Your task to perform on an android device: open the mobile data screen to see how much data has been used Image 0: 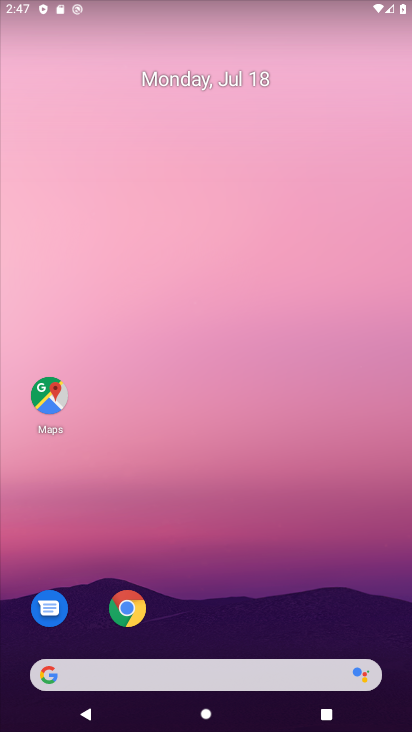
Step 0: drag from (243, 641) to (306, 95)
Your task to perform on an android device: open the mobile data screen to see how much data has been used Image 1: 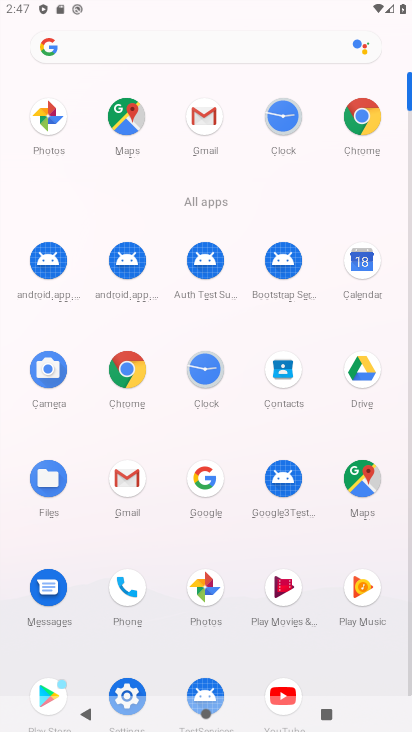
Step 1: click (109, 692)
Your task to perform on an android device: open the mobile data screen to see how much data has been used Image 2: 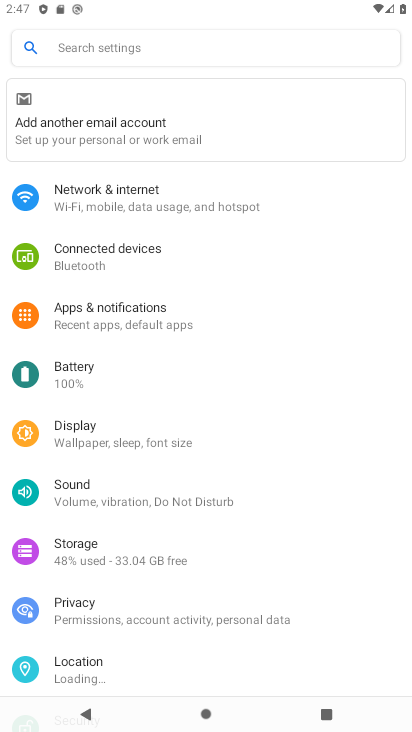
Step 2: click (188, 196)
Your task to perform on an android device: open the mobile data screen to see how much data has been used Image 3: 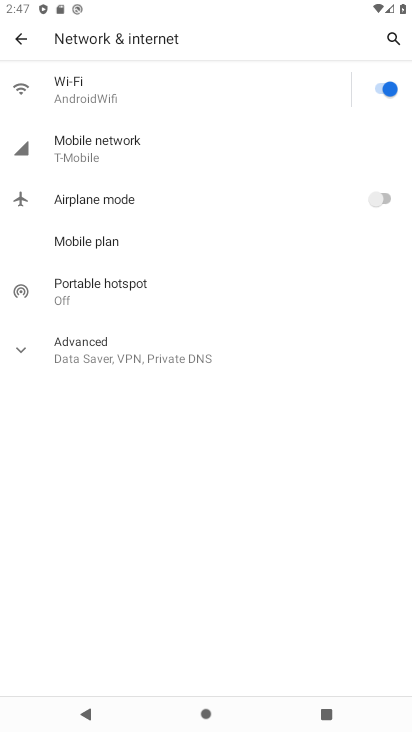
Step 3: click (167, 150)
Your task to perform on an android device: open the mobile data screen to see how much data has been used Image 4: 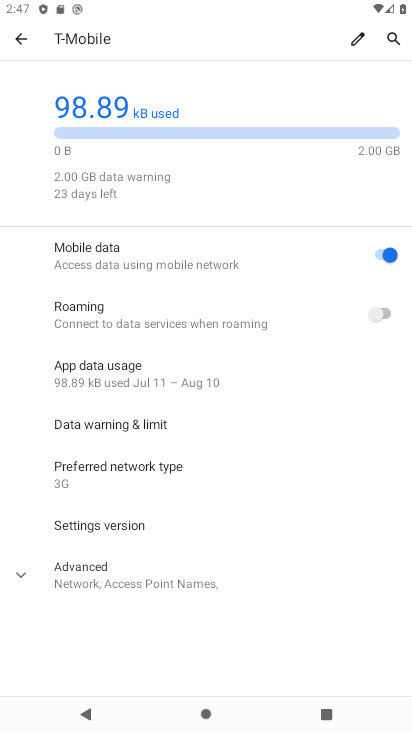
Step 4: task complete